Your task to perform on an android device: toggle show notifications on the lock screen Image 0: 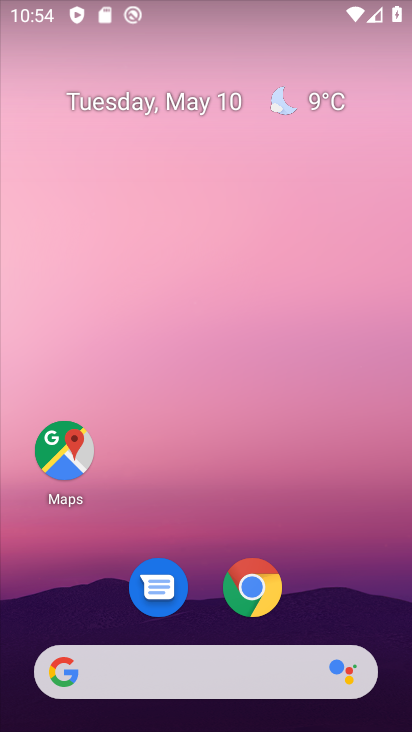
Step 0: drag from (358, 615) to (374, 56)
Your task to perform on an android device: toggle show notifications on the lock screen Image 1: 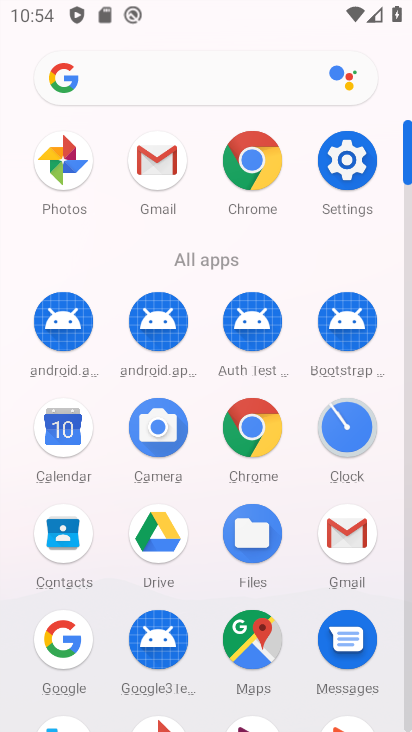
Step 1: click (345, 169)
Your task to perform on an android device: toggle show notifications on the lock screen Image 2: 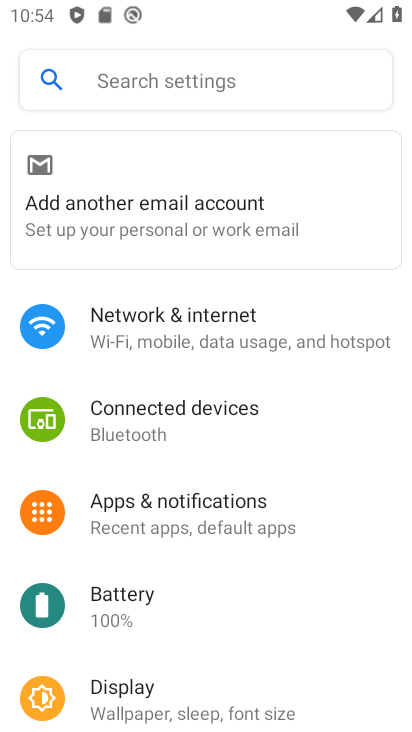
Step 2: click (195, 505)
Your task to perform on an android device: toggle show notifications on the lock screen Image 3: 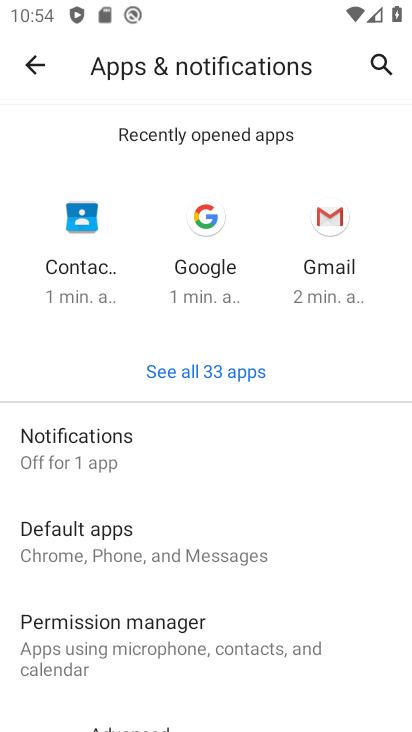
Step 3: click (76, 465)
Your task to perform on an android device: toggle show notifications on the lock screen Image 4: 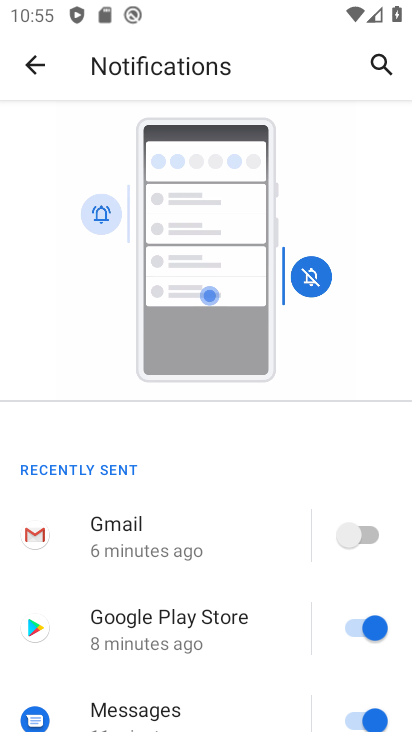
Step 4: drag from (111, 580) to (159, 196)
Your task to perform on an android device: toggle show notifications on the lock screen Image 5: 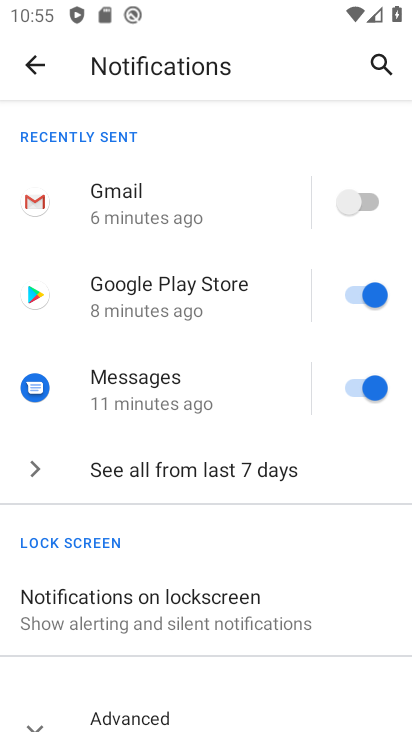
Step 5: click (134, 604)
Your task to perform on an android device: toggle show notifications on the lock screen Image 6: 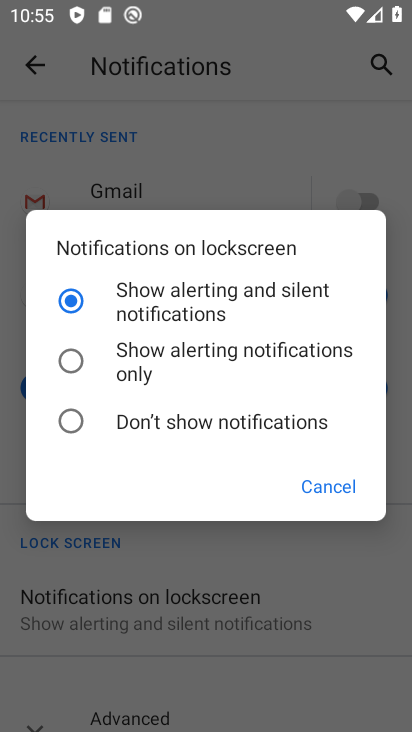
Step 6: click (74, 421)
Your task to perform on an android device: toggle show notifications on the lock screen Image 7: 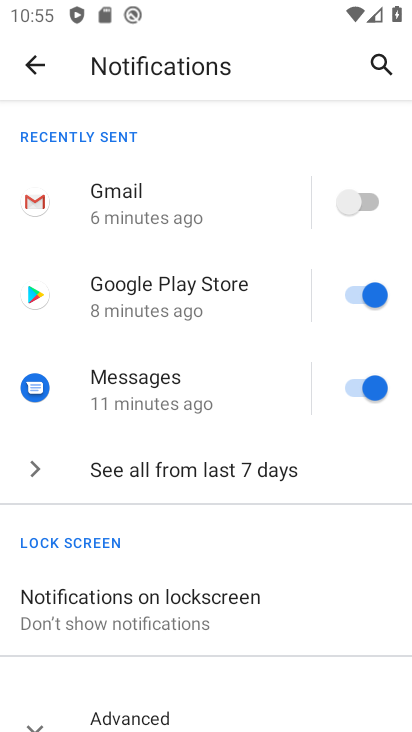
Step 7: task complete